Your task to perform on an android device: Find coffee shops on Maps Image 0: 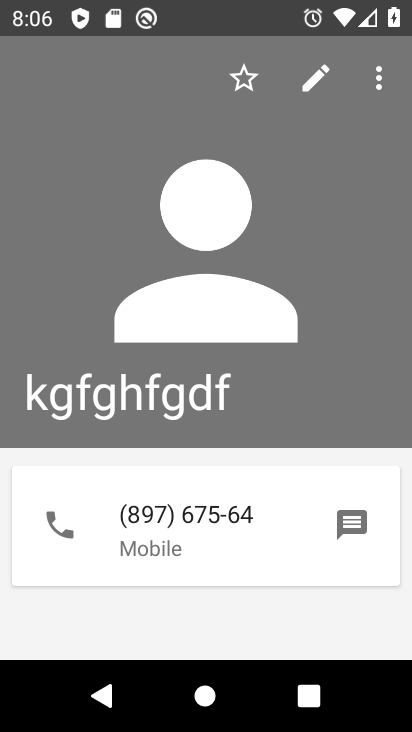
Step 0: press home button
Your task to perform on an android device: Find coffee shops on Maps Image 1: 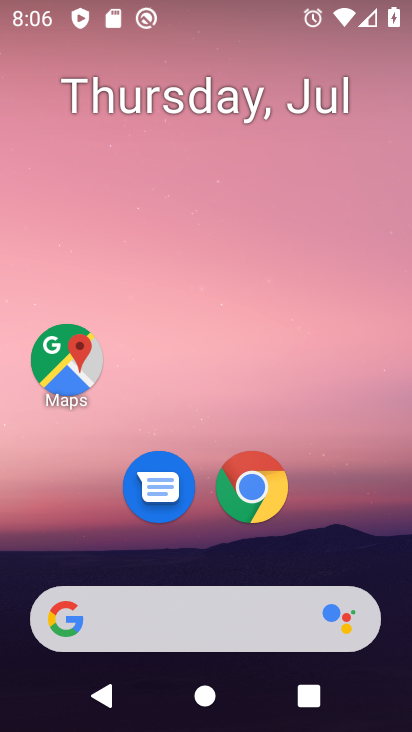
Step 1: drag from (266, 594) to (272, 190)
Your task to perform on an android device: Find coffee shops on Maps Image 2: 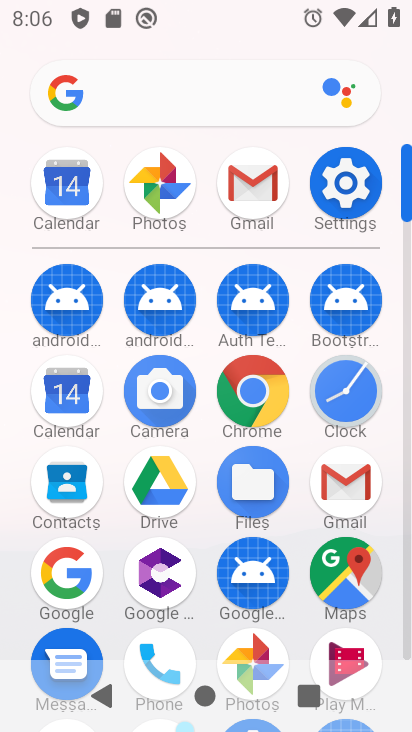
Step 2: click (347, 595)
Your task to perform on an android device: Find coffee shops on Maps Image 3: 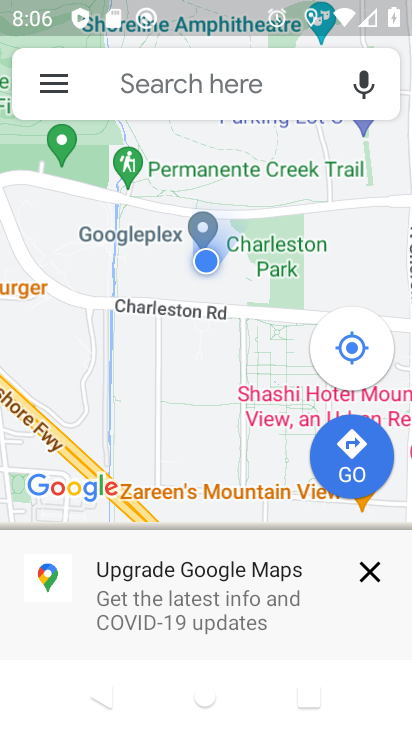
Step 3: click (165, 89)
Your task to perform on an android device: Find coffee shops on Maps Image 4: 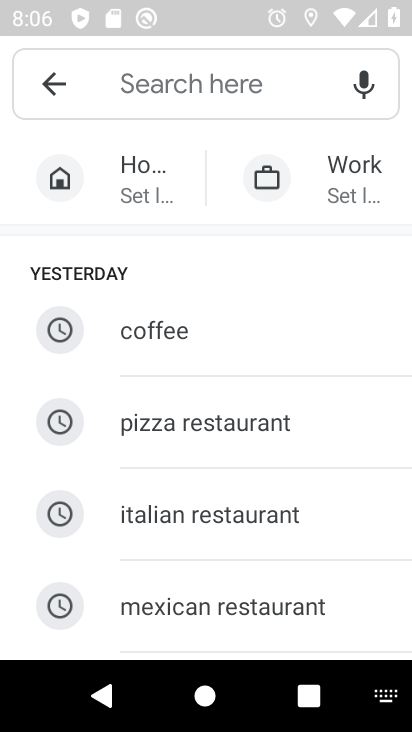
Step 4: type "coffee shops"
Your task to perform on an android device: Find coffee shops on Maps Image 5: 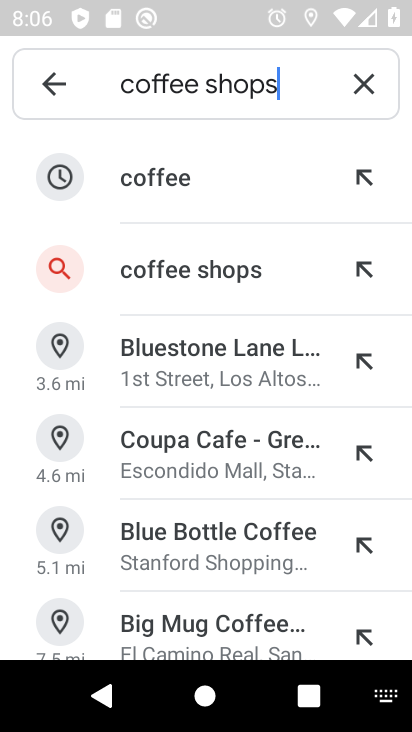
Step 5: click (252, 272)
Your task to perform on an android device: Find coffee shops on Maps Image 6: 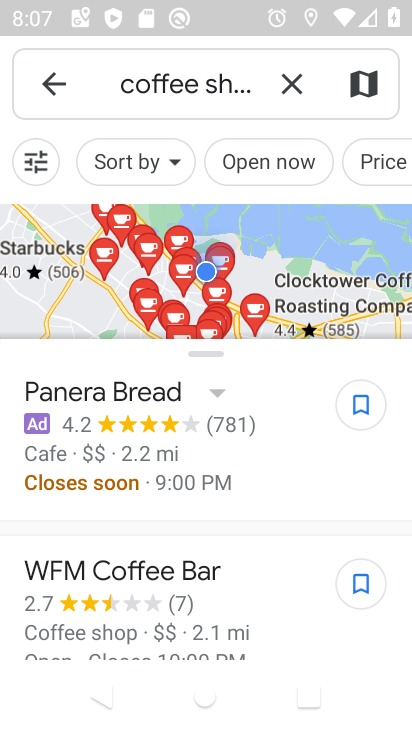
Step 6: task complete